Your task to perform on an android device: Go to Yahoo.com Image 0: 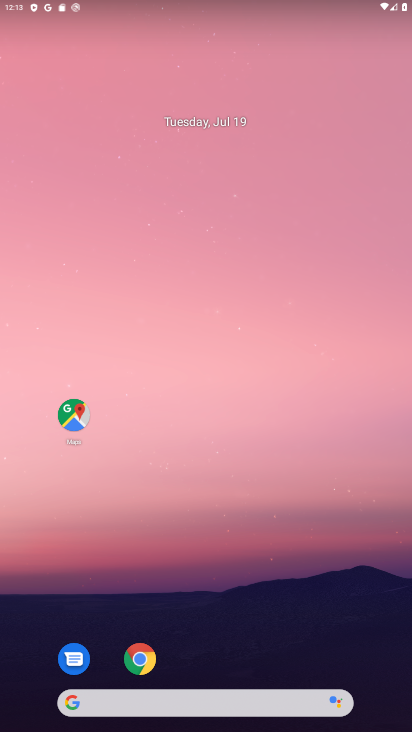
Step 0: click (143, 660)
Your task to perform on an android device: Go to Yahoo.com Image 1: 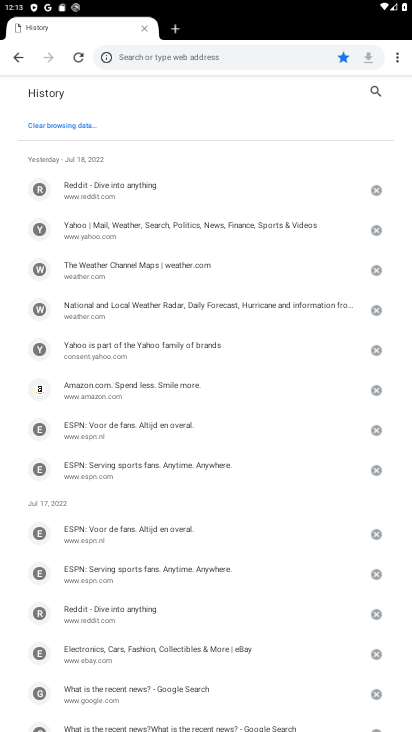
Step 1: click (260, 59)
Your task to perform on an android device: Go to Yahoo.com Image 2: 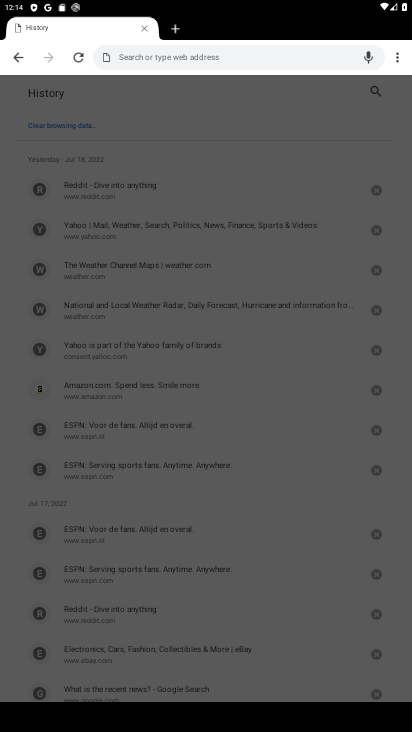
Step 2: type "Yahoo.com"
Your task to perform on an android device: Go to Yahoo.com Image 3: 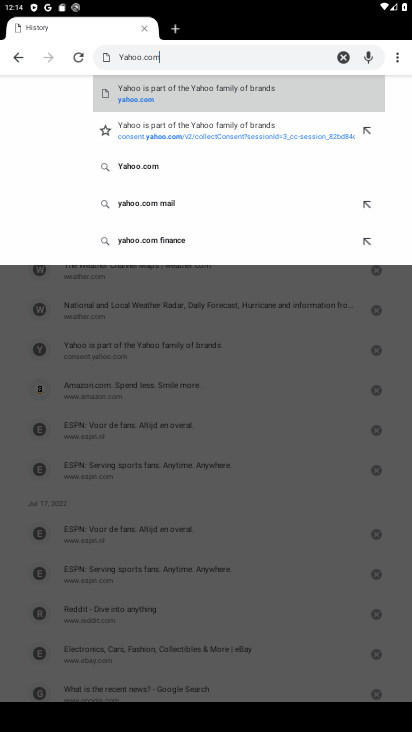
Step 3: type ""
Your task to perform on an android device: Go to Yahoo.com Image 4: 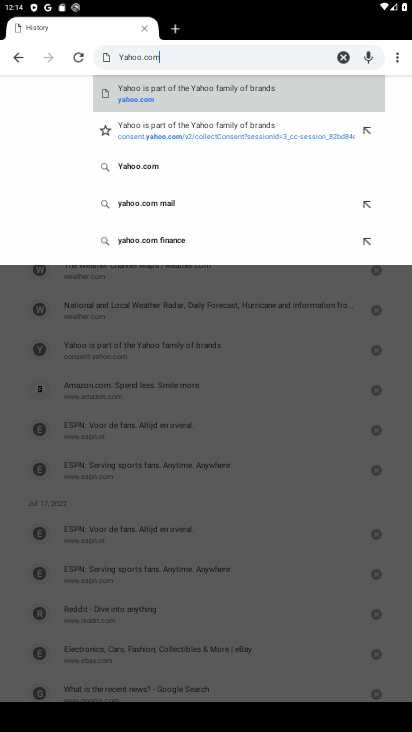
Step 4: click (158, 167)
Your task to perform on an android device: Go to Yahoo.com Image 5: 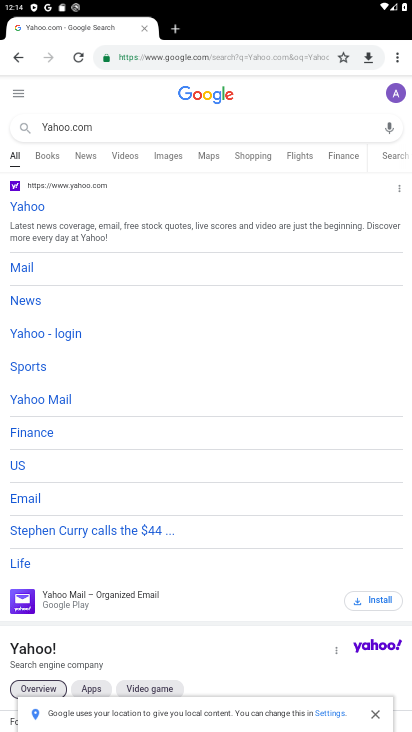
Step 5: click (23, 209)
Your task to perform on an android device: Go to Yahoo.com Image 6: 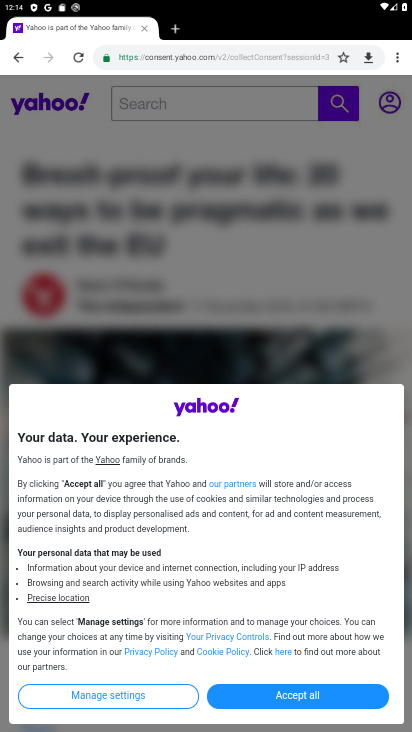
Step 6: click (284, 699)
Your task to perform on an android device: Go to Yahoo.com Image 7: 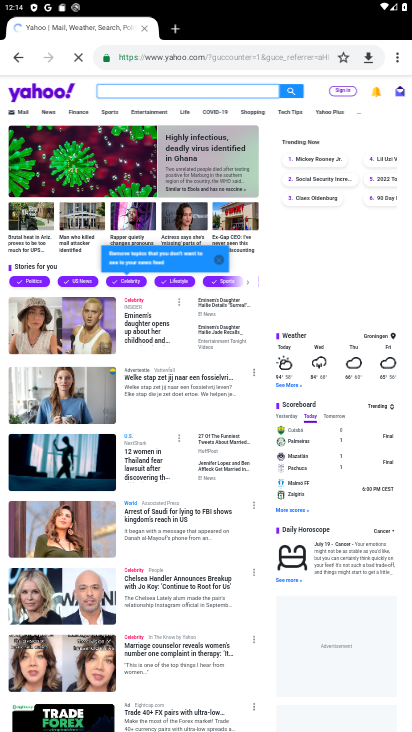
Step 7: task complete